Your task to perform on an android device: find snoozed emails in the gmail app Image 0: 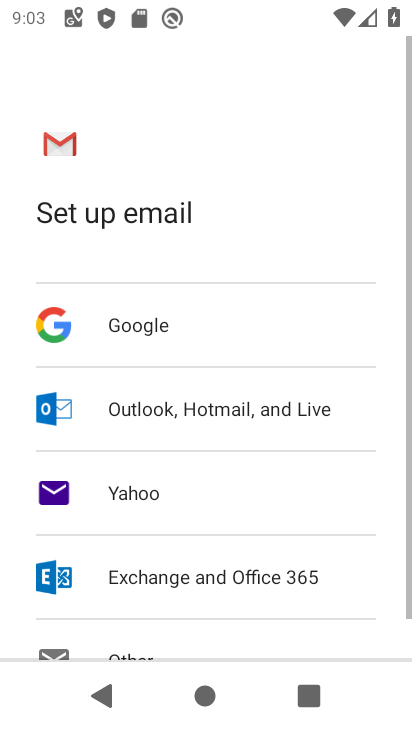
Step 0: press home button
Your task to perform on an android device: find snoozed emails in the gmail app Image 1: 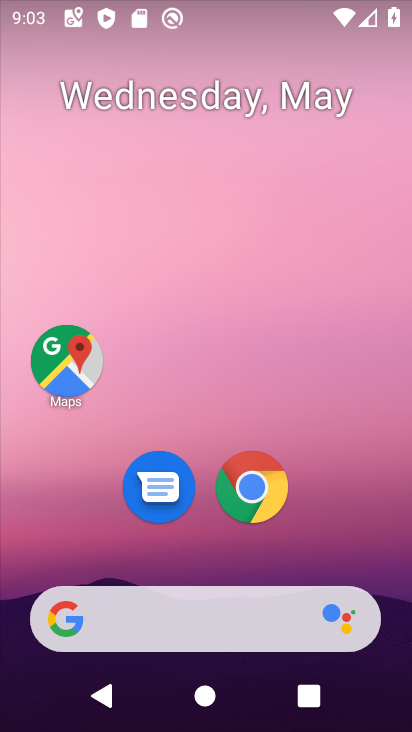
Step 1: drag from (332, 504) to (224, 19)
Your task to perform on an android device: find snoozed emails in the gmail app Image 2: 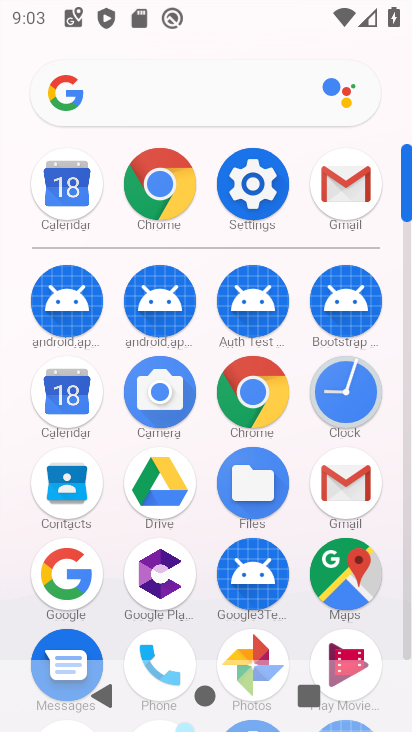
Step 2: click (347, 187)
Your task to perform on an android device: find snoozed emails in the gmail app Image 3: 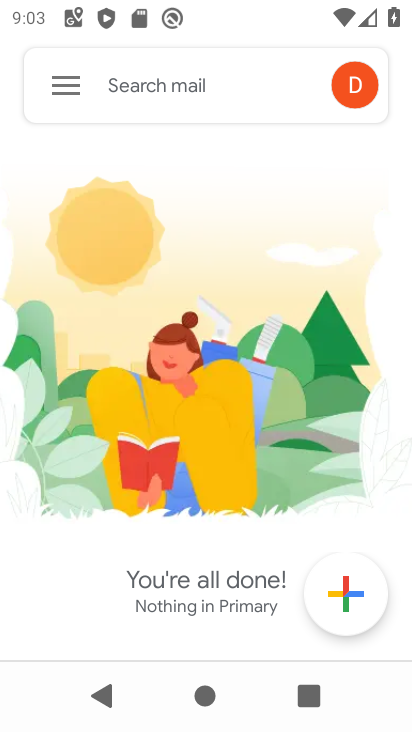
Step 3: click (64, 66)
Your task to perform on an android device: find snoozed emails in the gmail app Image 4: 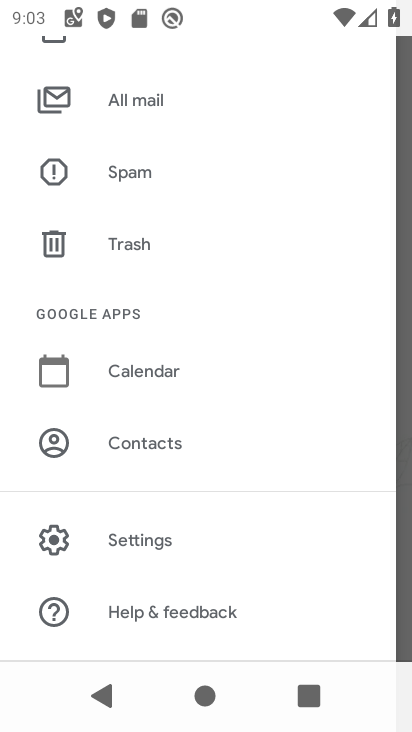
Step 4: drag from (197, 307) to (312, 716)
Your task to perform on an android device: find snoozed emails in the gmail app Image 5: 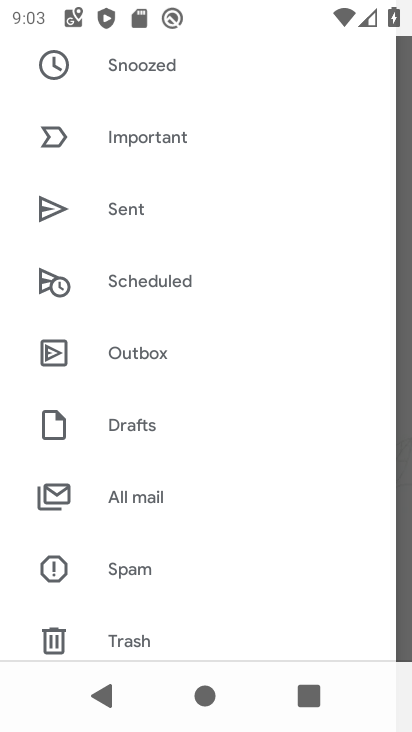
Step 5: click (139, 67)
Your task to perform on an android device: find snoozed emails in the gmail app Image 6: 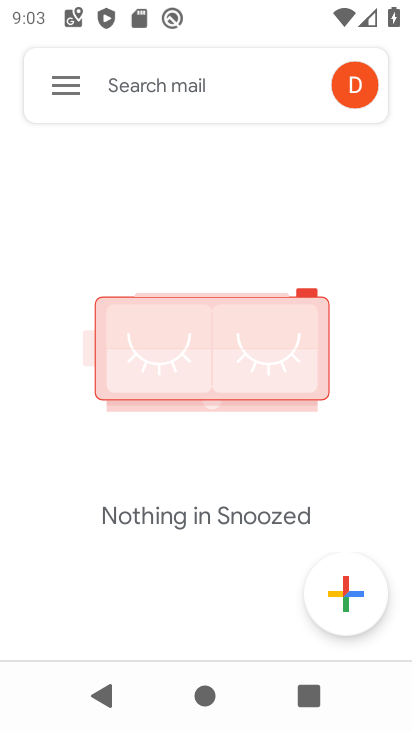
Step 6: task complete